Your task to perform on an android device: What is the recent news? Image 0: 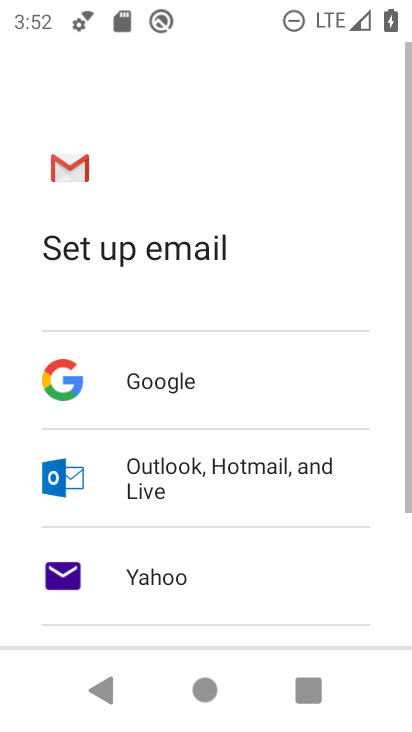
Step 0: press home button
Your task to perform on an android device: What is the recent news? Image 1: 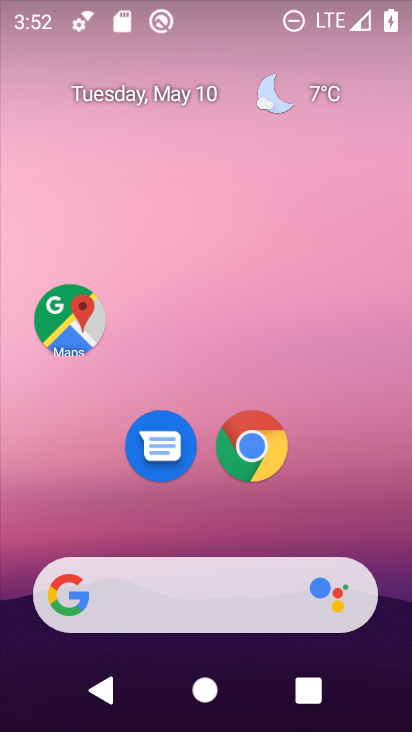
Step 1: drag from (219, 511) to (194, 112)
Your task to perform on an android device: What is the recent news? Image 2: 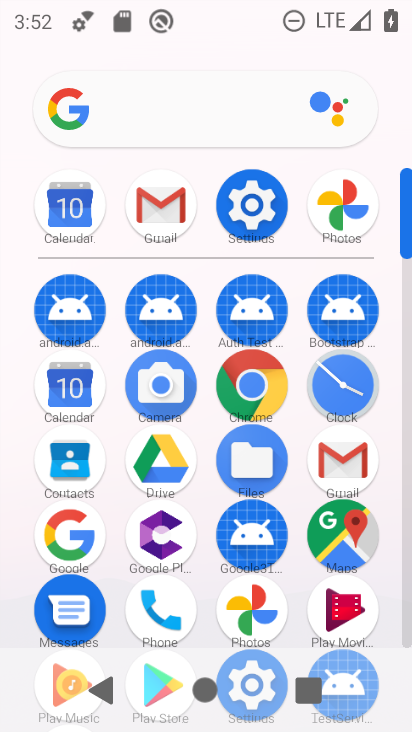
Step 2: click (77, 542)
Your task to perform on an android device: What is the recent news? Image 3: 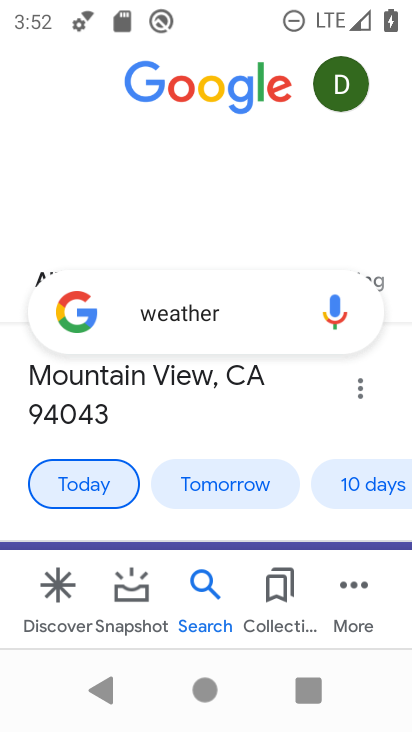
Step 3: click (235, 314)
Your task to perform on an android device: What is the recent news? Image 4: 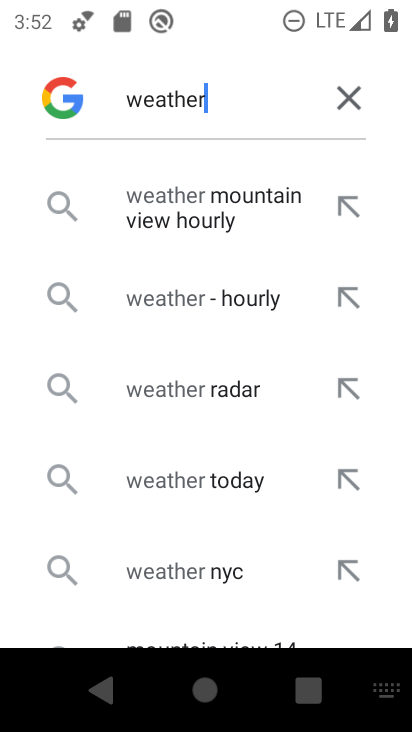
Step 4: click (348, 99)
Your task to perform on an android device: What is the recent news? Image 5: 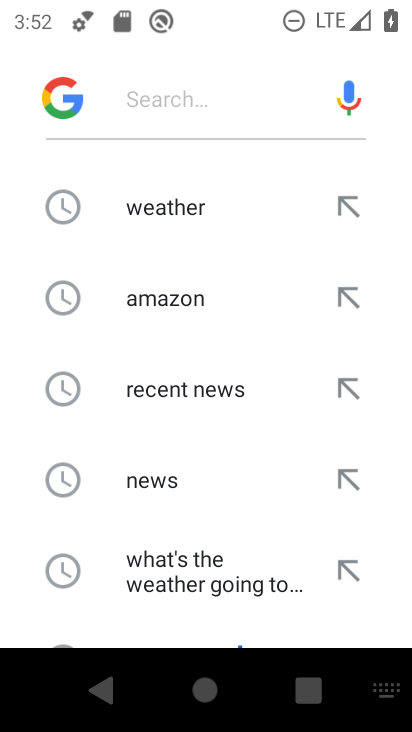
Step 5: click (181, 481)
Your task to perform on an android device: What is the recent news? Image 6: 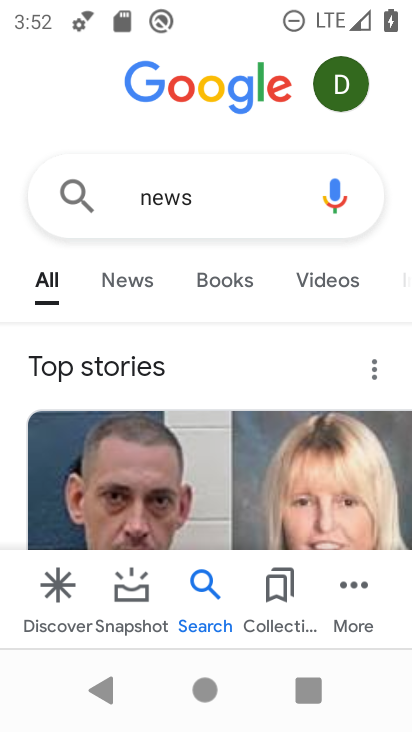
Step 6: click (136, 279)
Your task to perform on an android device: What is the recent news? Image 7: 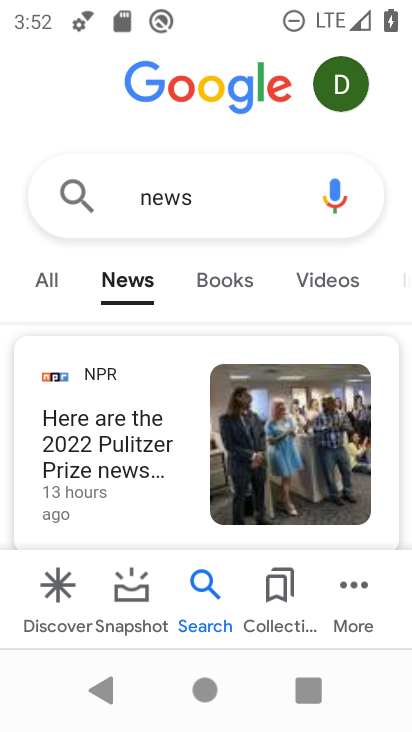
Step 7: task complete